Your task to perform on an android device: Search for razer huntsman on costco.com, select the first entry, add it to the cart, then select checkout. Image 0: 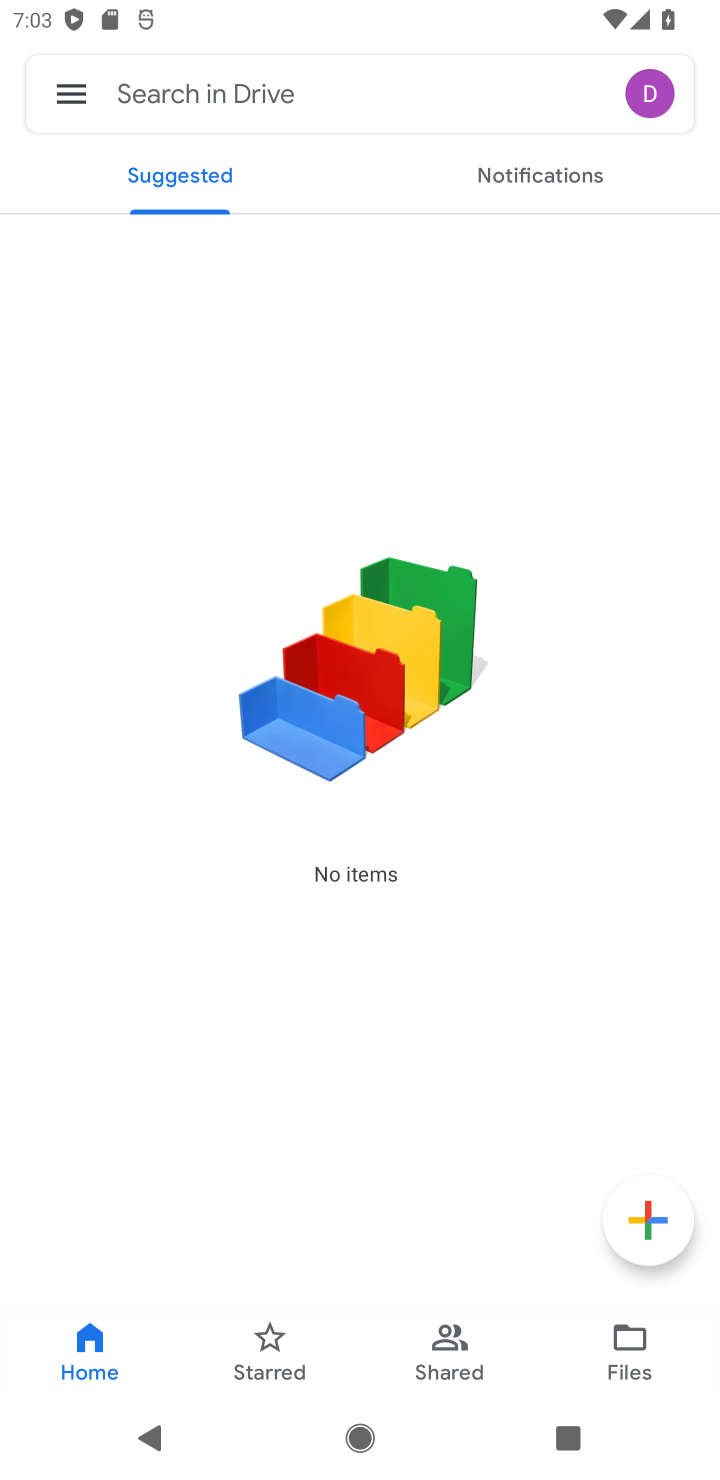
Step 0: press home button
Your task to perform on an android device: Search for razer huntsman on costco.com, select the first entry, add it to the cart, then select checkout. Image 1: 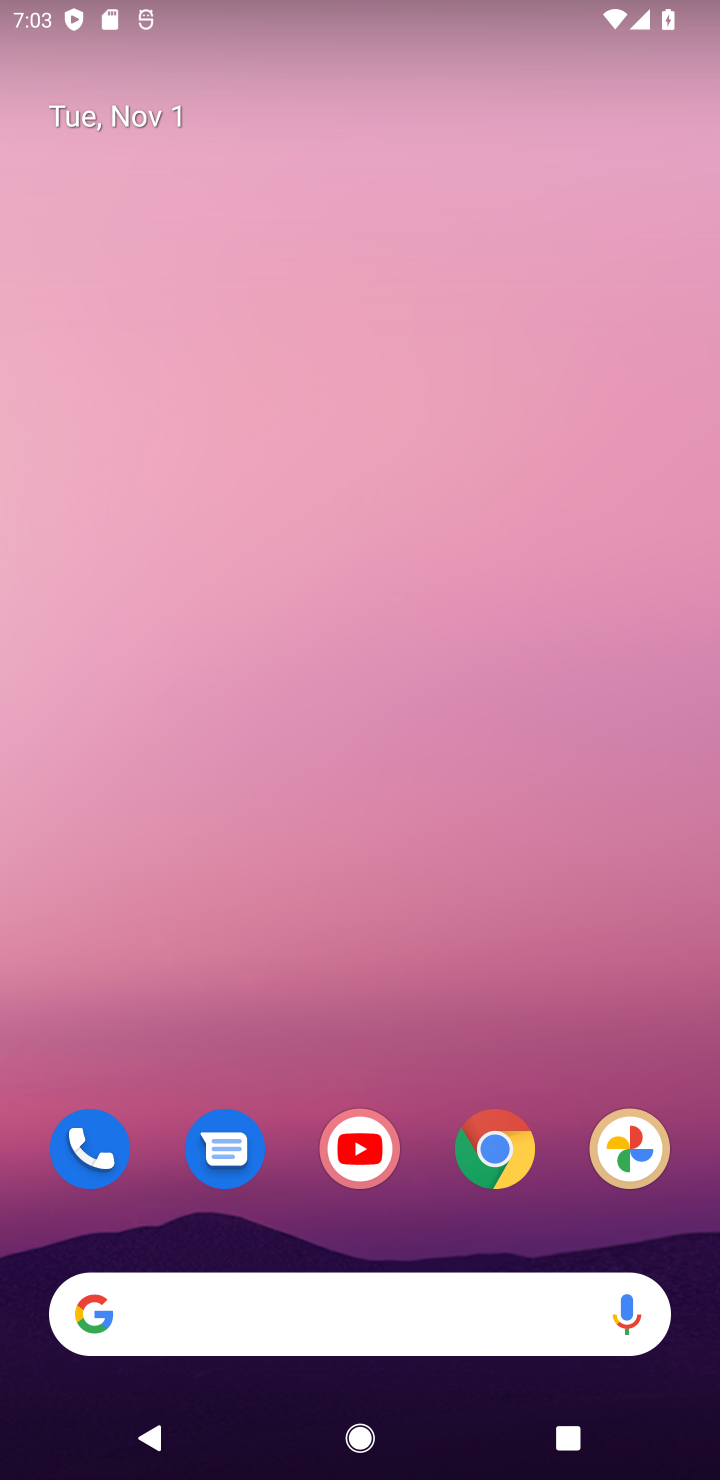
Step 1: drag from (400, 1260) to (507, 212)
Your task to perform on an android device: Search for razer huntsman on costco.com, select the first entry, add it to the cart, then select checkout. Image 2: 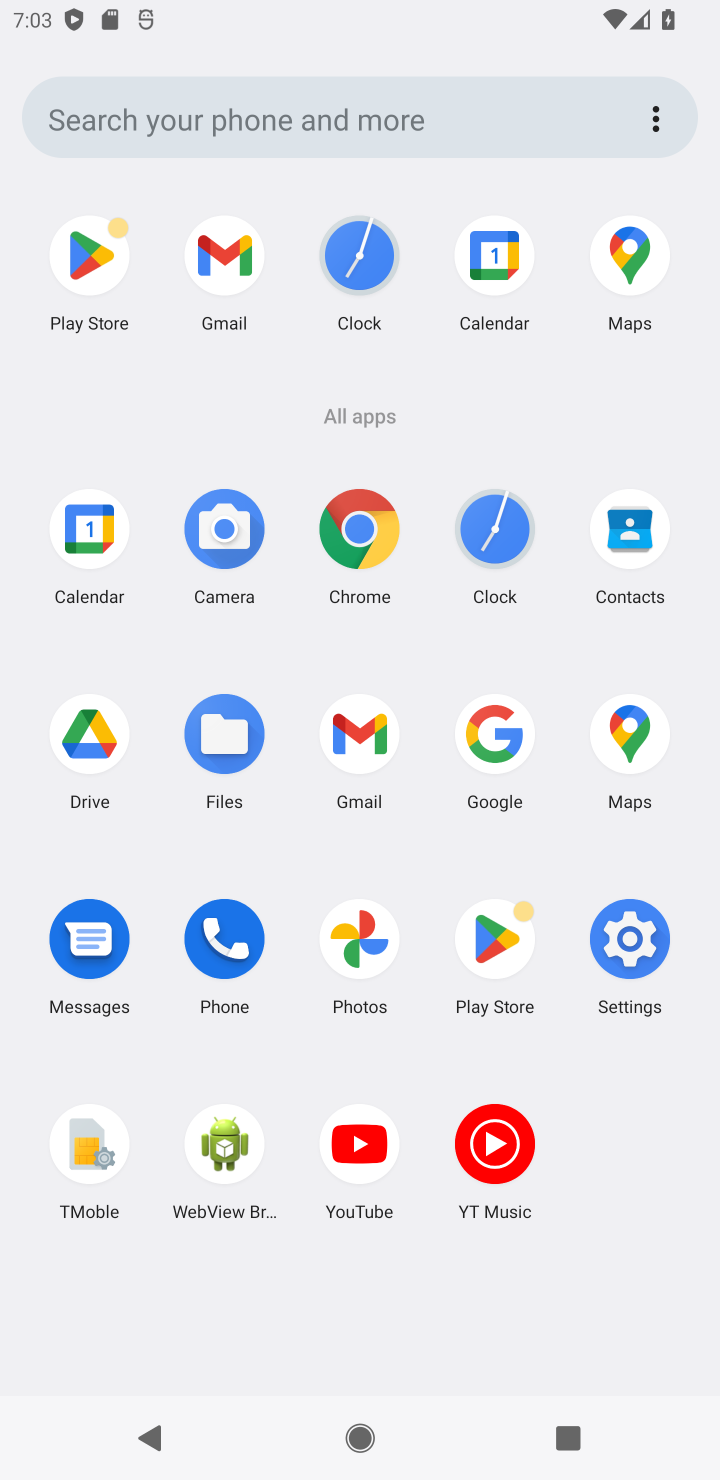
Step 2: click (366, 524)
Your task to perform on an android device: Search for razer huntsman on costco.com, select the first entry, add it to the cart, then select checkout. Image 3: 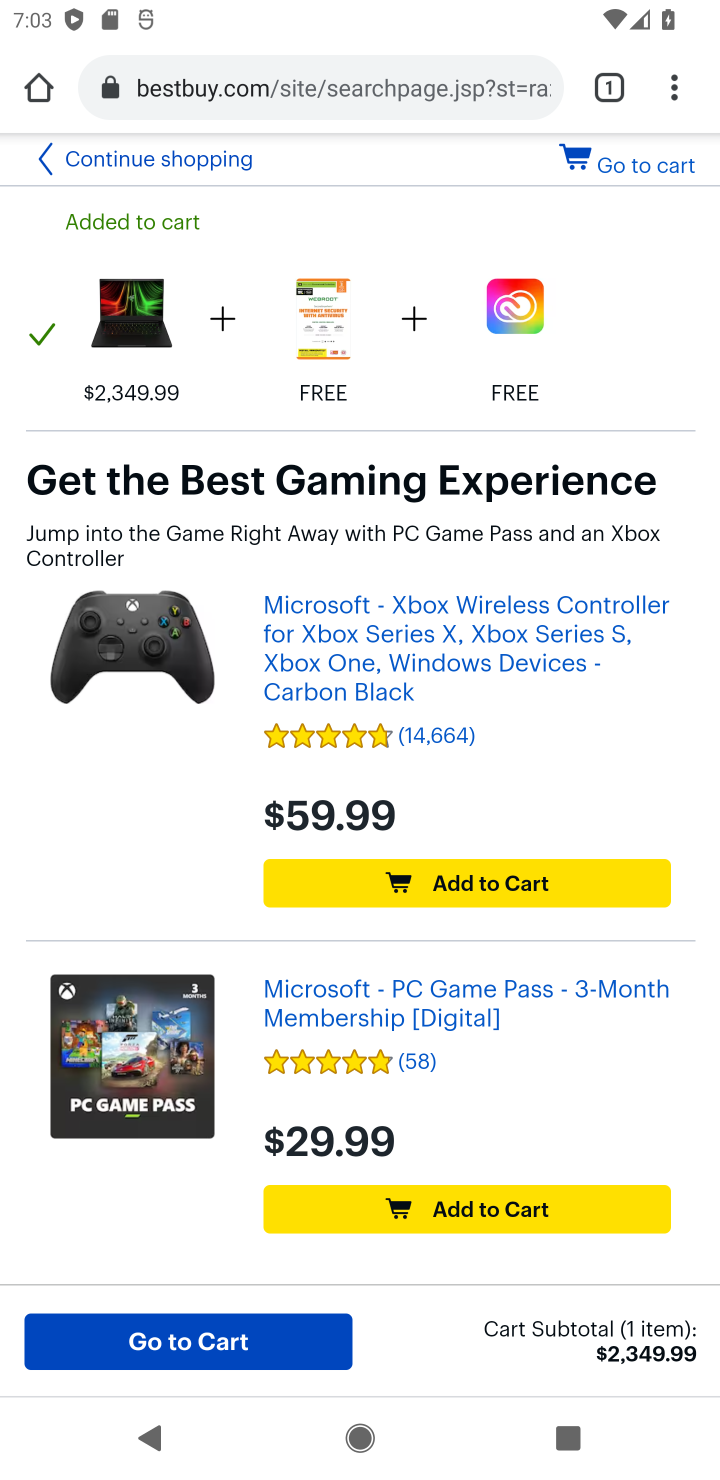
Step 3: click (340, 105)
Your task to perform on an android device: Search for razer huntsman on costco.com, select the first entry, add it to the cart, then select checkout. Image 4: 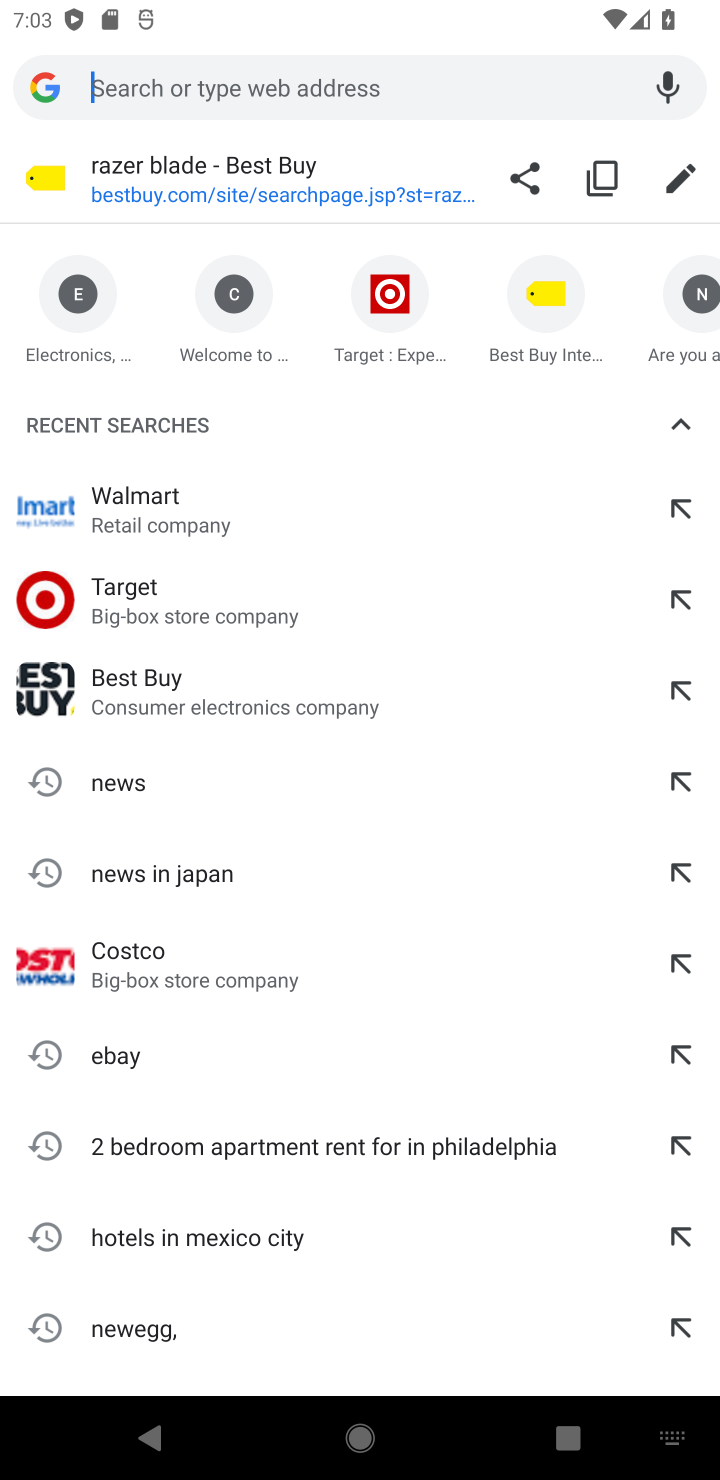
Step 4: type "costco.com"
Your task to perform on an android device: Search for razer huntsman on costco.com, select the first entry, add it to the cart, then select checkout. Image 5: 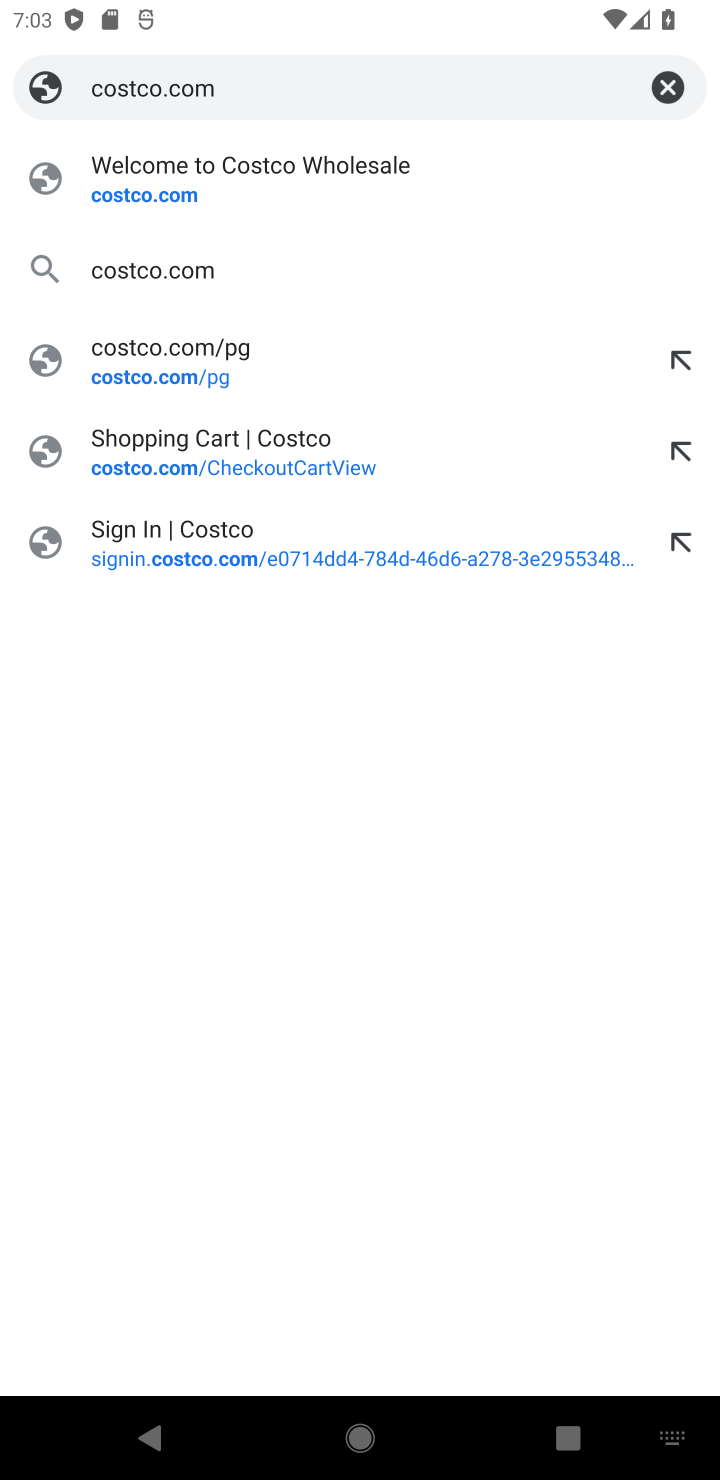
Step 5: press enter
Your task to perform on an android device: Search for razer huntsman on costco.com, select the first entry, add it to the cart, then select checkout. Image 6: 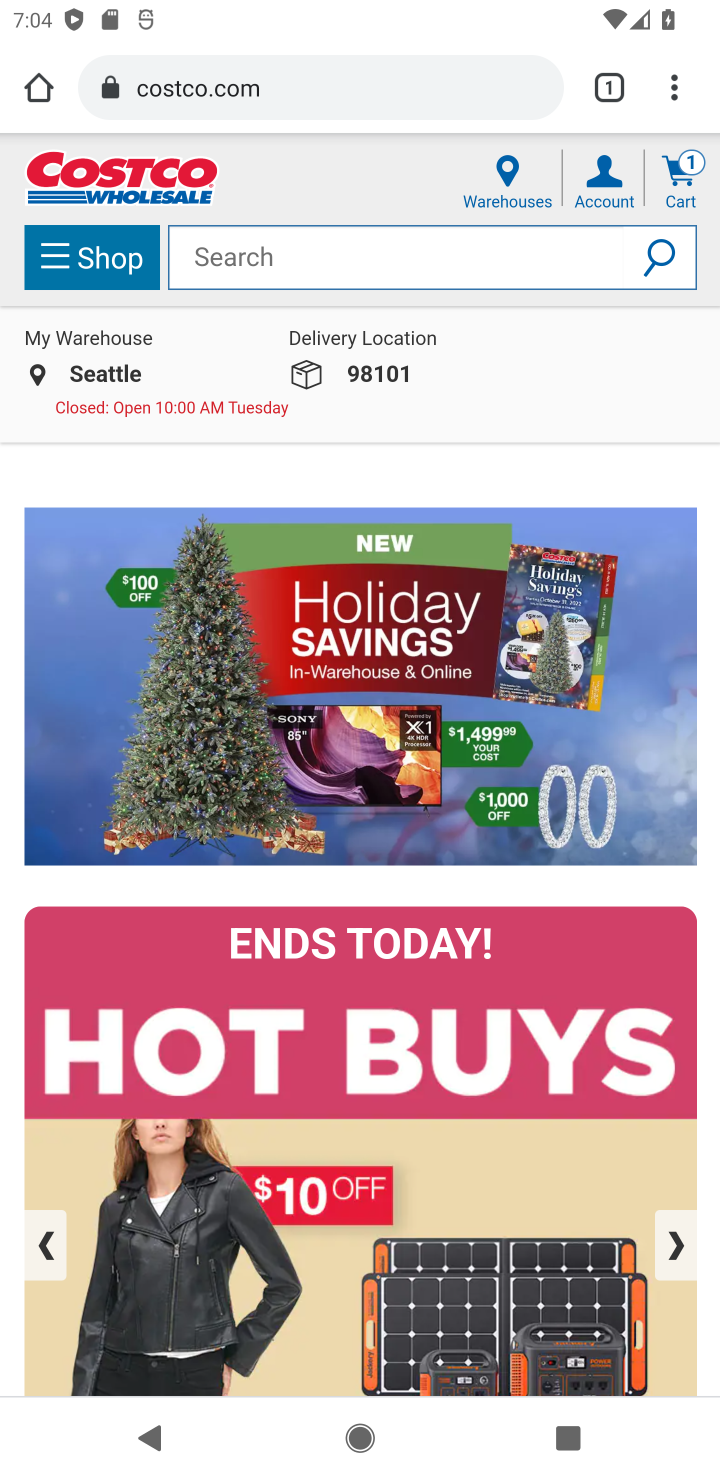
Step 6: click (443, 242)
Your task to perform on an android device: Search for razer huntsman on costco.com, select the first entry, add it to the cart, then select checkout. Image 7: 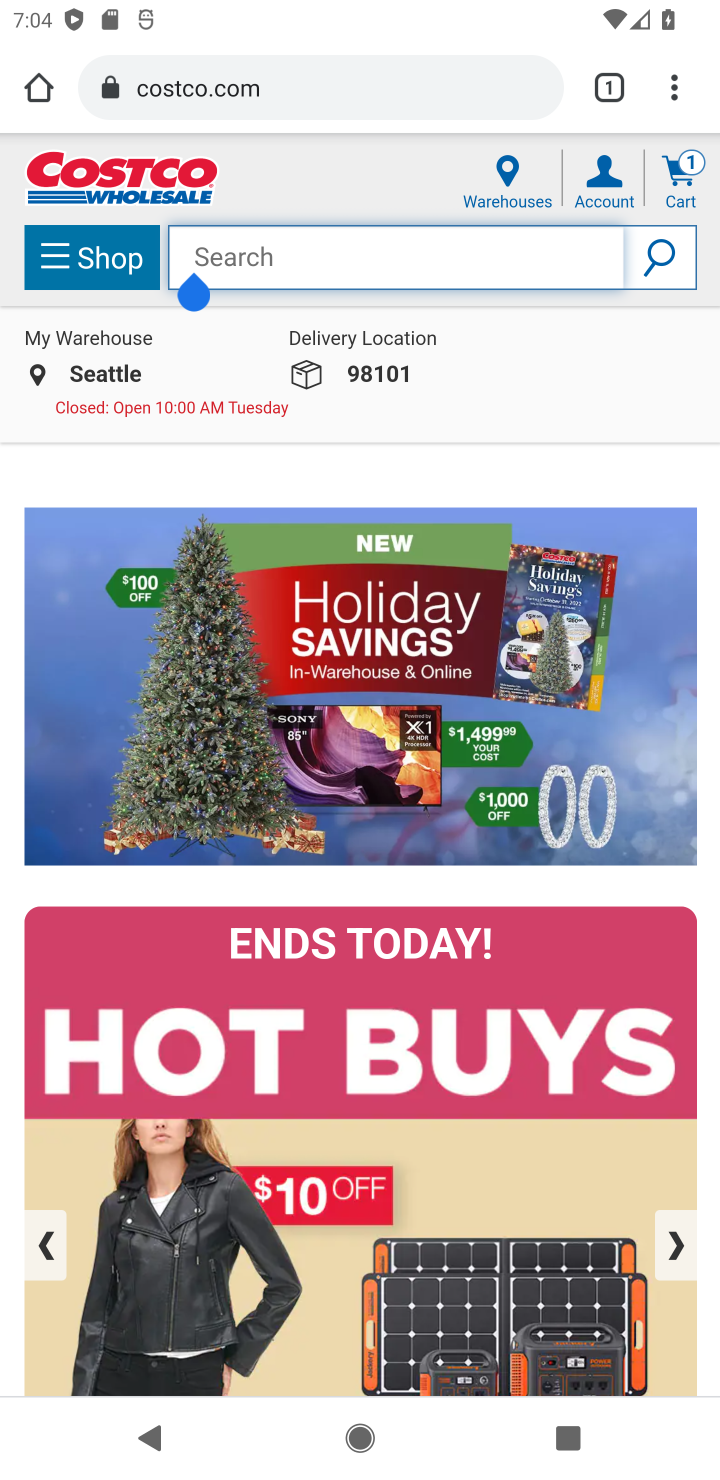
Step 7: type "razer huntsman"
Your task to perform on an android device: Search for razer huntsman on costco.com, select the first entry, add it to the cart, then select checkout. Image 8: 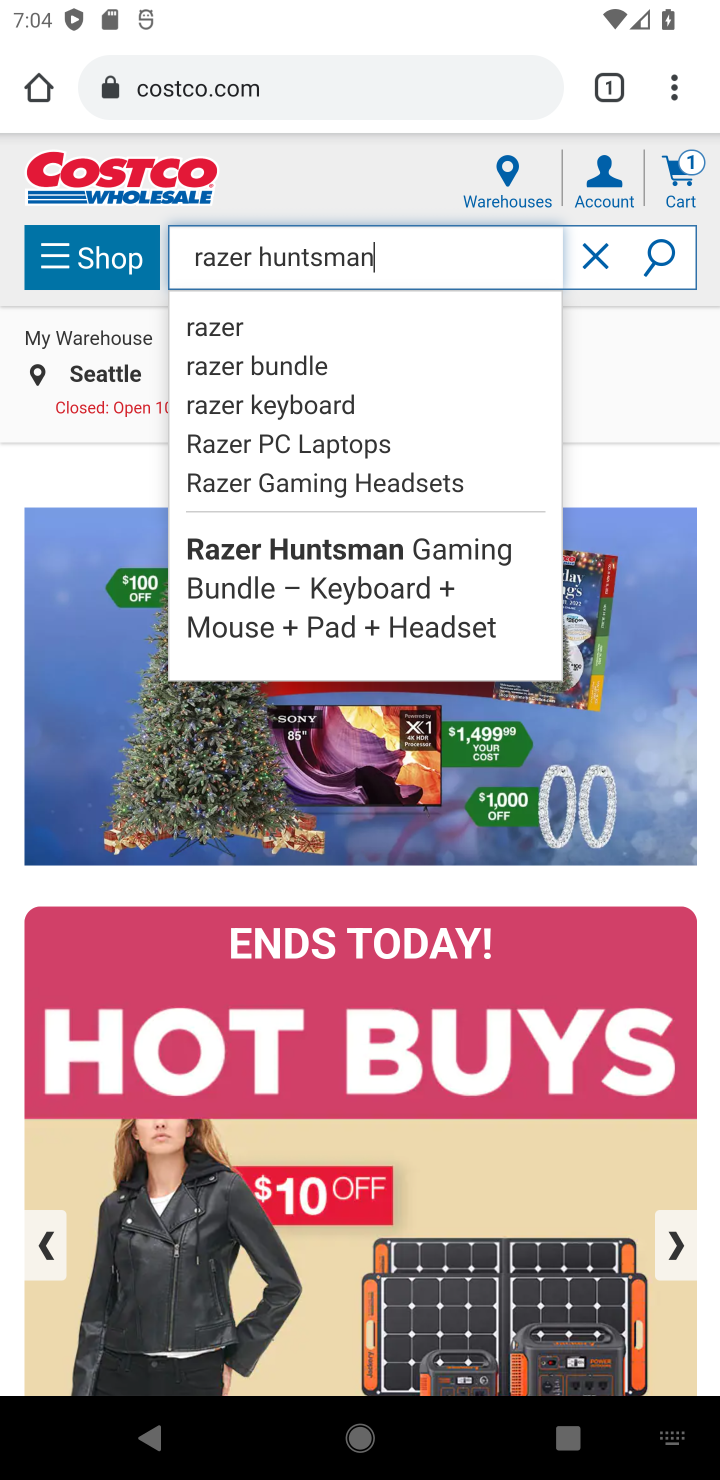
Step 8: press enter
Your task to perform on an android device: Search for razer huntsman on costco.com, select the first entry, add it to the cart, then select checkout. Image 9: 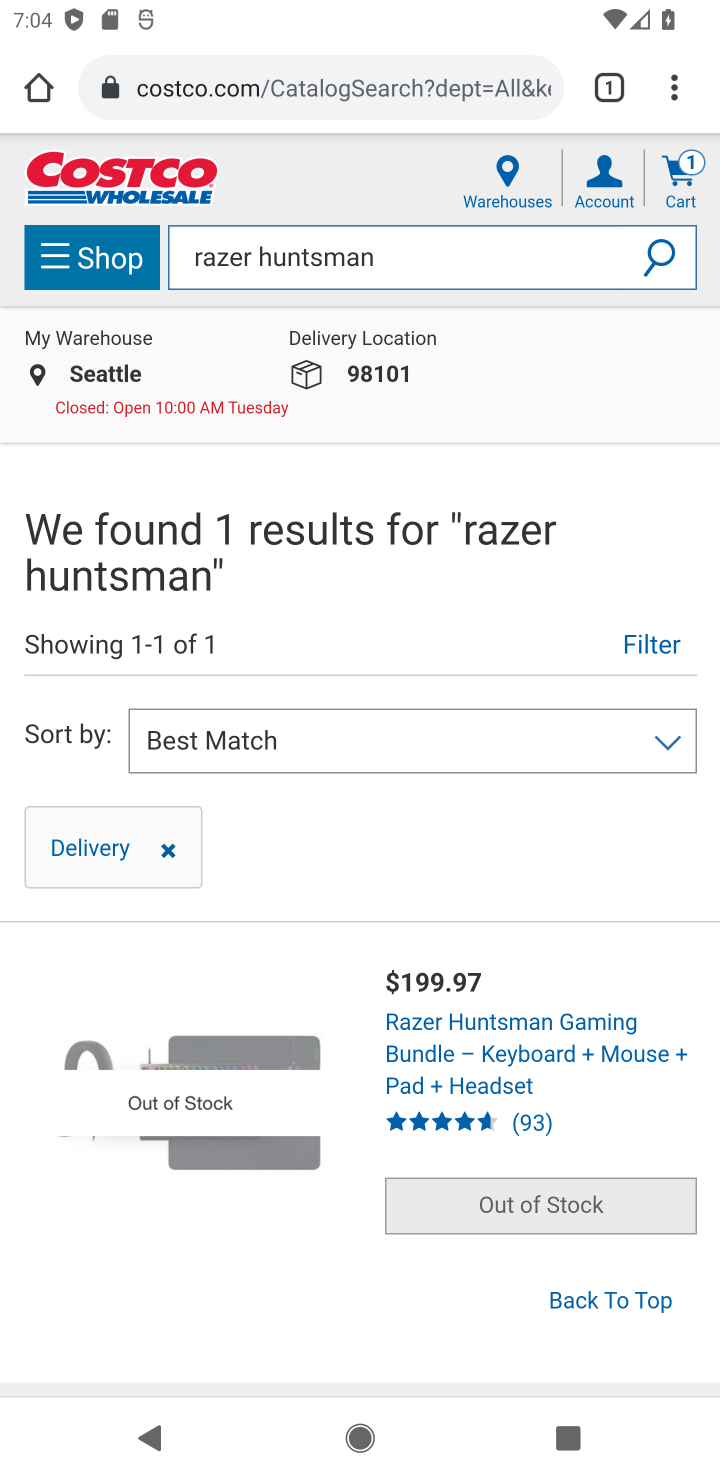
Step 9: click (431, 1061)
Your task to perform on an android device: Search for razer huntsman on costco.com, select the first entry, add it to the cart, then select checkout. Image 10: 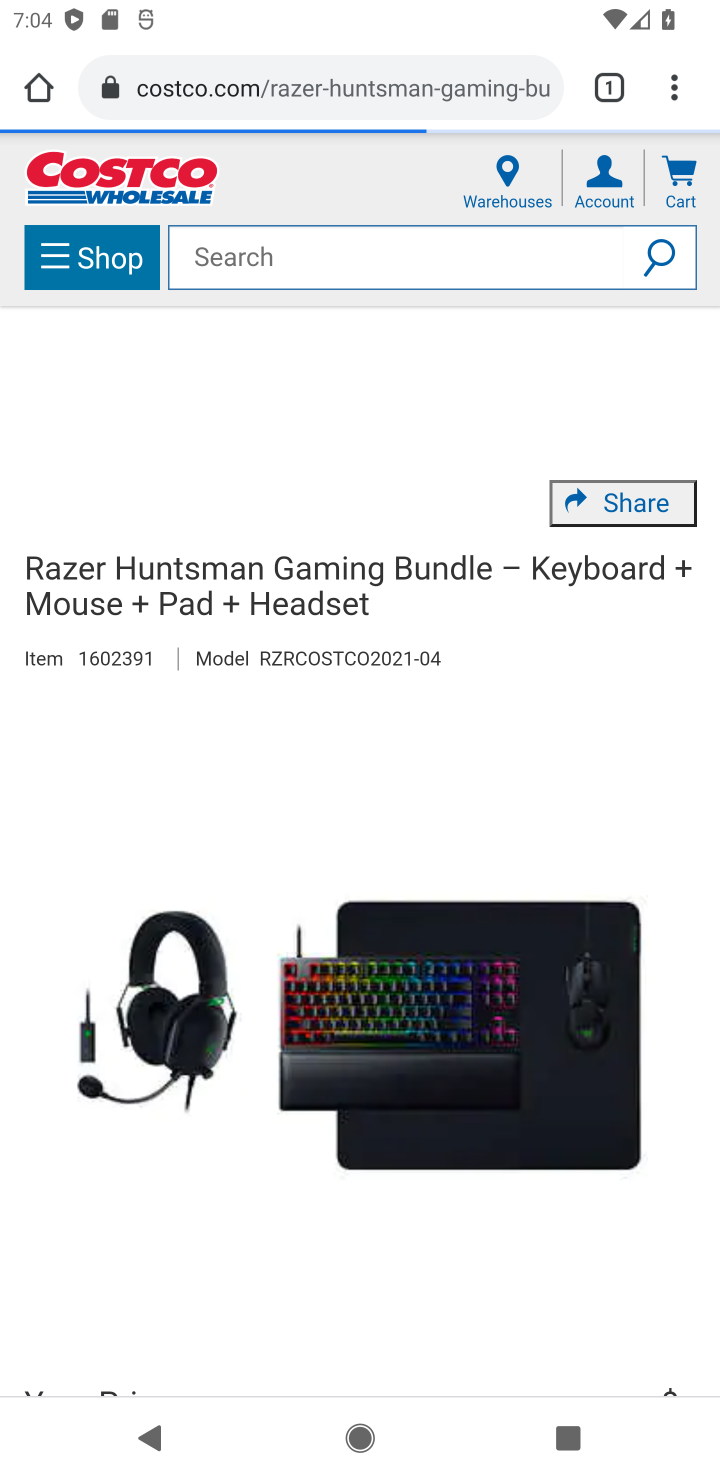
Step 10: task complete